Your task to perform on an android device: Open location settings Image 0: 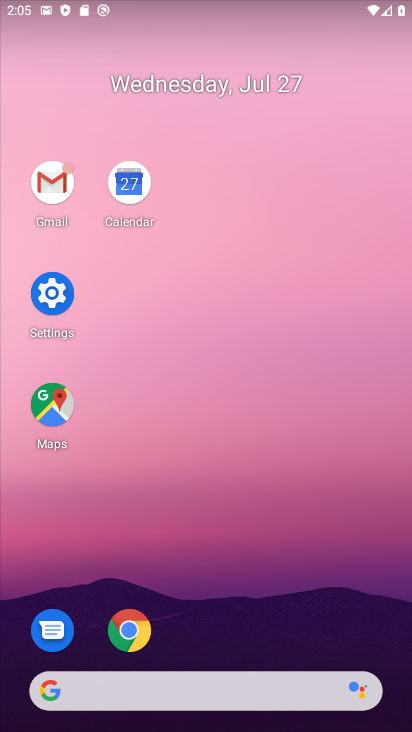
Step 0: click (52, 283)
Your task to perform on an android device: Open location settings Image 1: 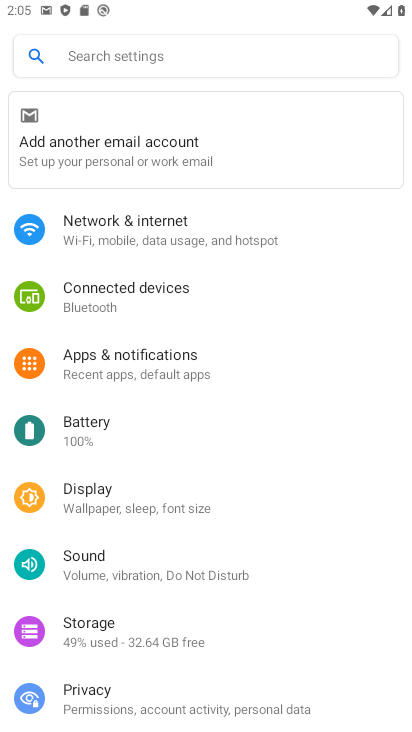
Step 1: drag from (295, 606) to (261, 277)
Your task to perform on an android device: Open location settings Image 2: 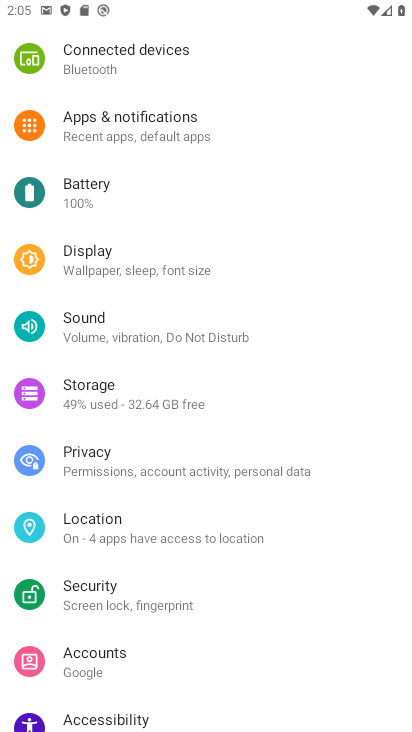
Step 2: click (180, 525)
Your task to perform on an android device: Open location settings Image 3: 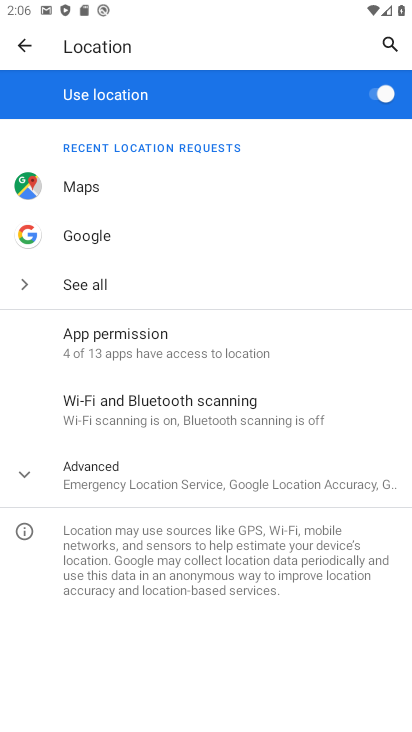
Step 3: task complete